Your task to perform on an android device: turn on improve location accuracy Image 0: 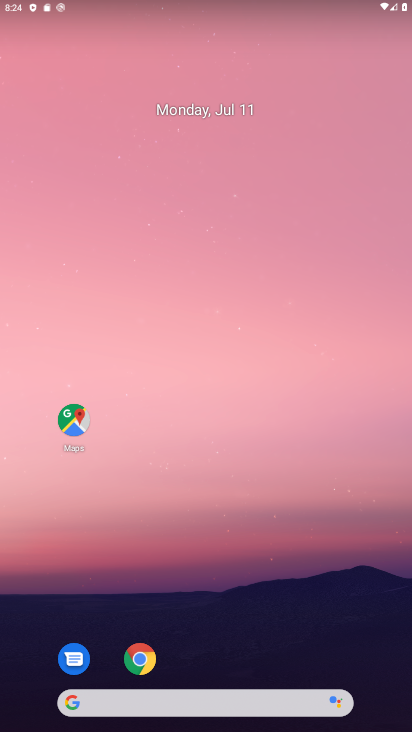
Step 0: drag from (217, 666) to (220, 223)
Your task to perform on an android device: turn on improve location accuracy Image 1: 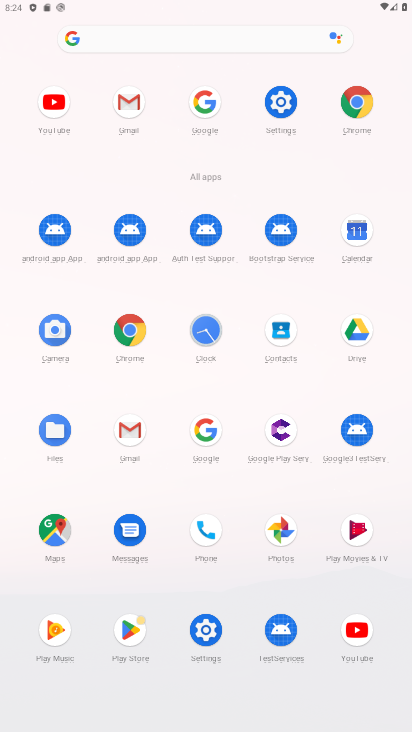
Step 1: click (285, 110)
Your task to perform on an android device: turn on improve location accuracy Image 2: 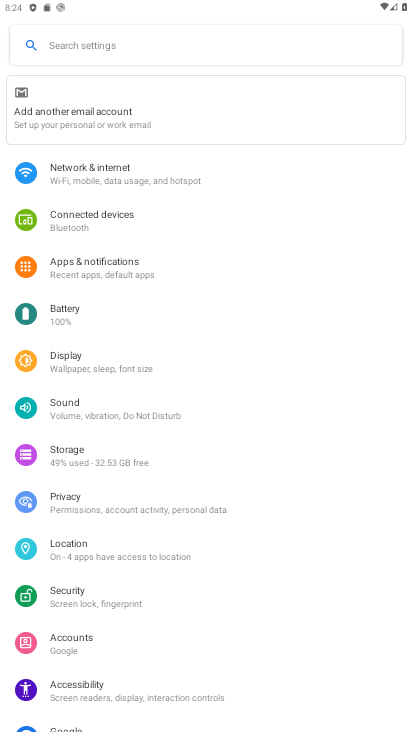
Step 2: click (125, 545)
Your task to perform on an android device: turn on improve location accuracy Image 3: 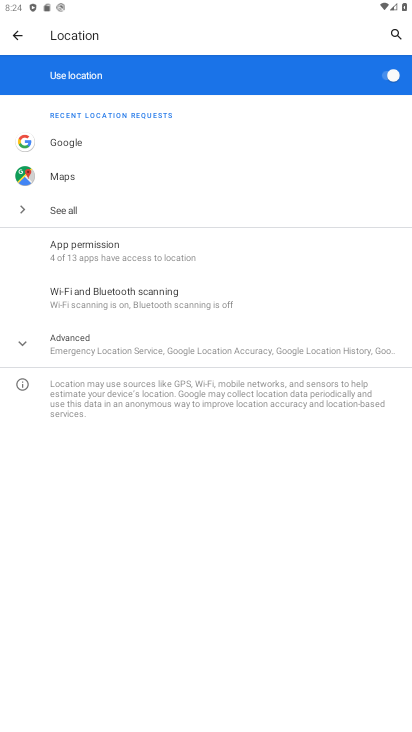
Step 3: click (168, 346)
Your task to perform on an android device: turn on improve location accuracy Image 4: 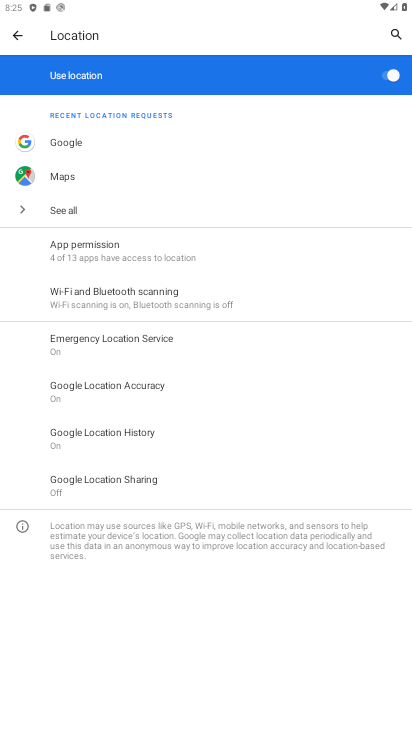
Step 4: click (173, 391)
Your task to perform on an android device: turn on improve location accuracy Image 5: 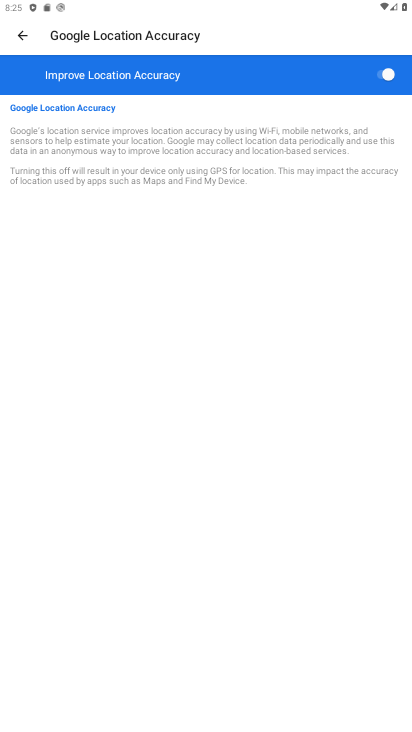
Step 5: task complete